Your task to perform on an android device: Open Maps and search for coffee Image 0: 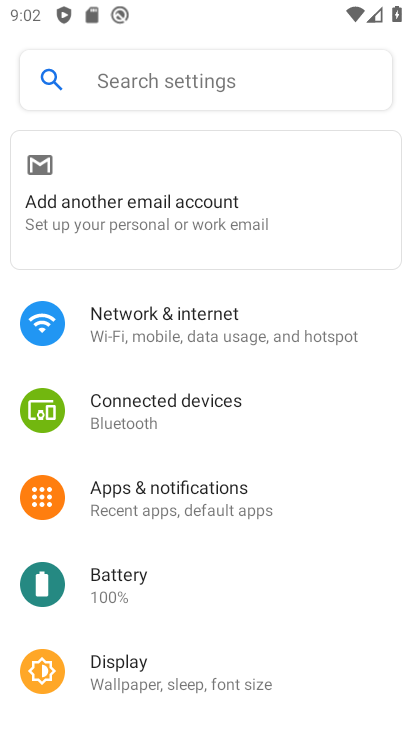
Step 0: press home button
Your task to perform on an android device: Open Maps and search for coffee Image 1: 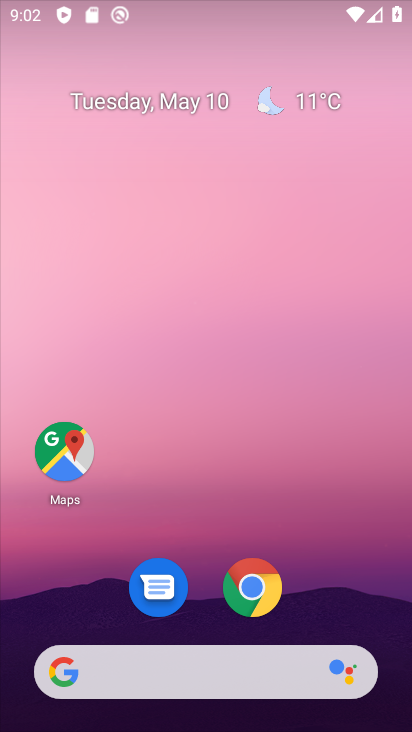
Step 1: click (29, 221)
Your task to perform on an android device: Open Maps and search for coffee Image 2: 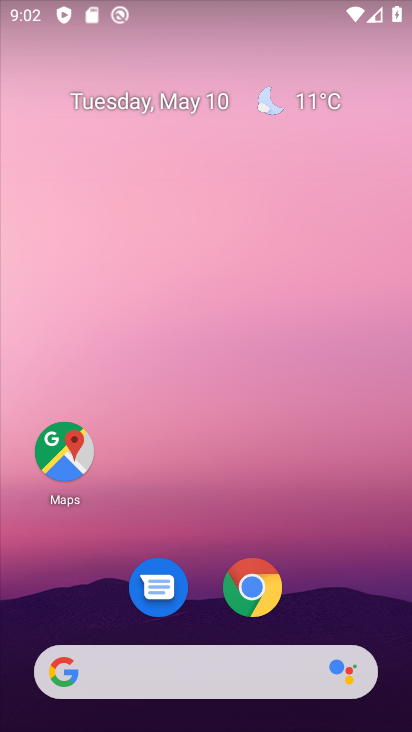
Step 2: click (71, 432)
Your task to perform on an android device: Open Maps and search for coffee Image 3: 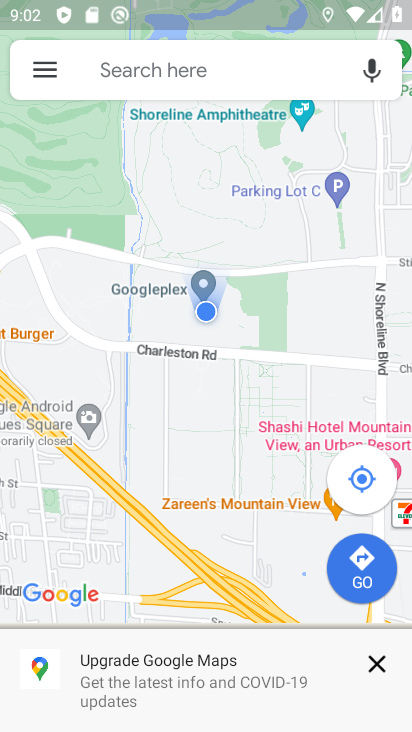
Step 3: click (233, 62)
Your task to perform on an android device: Open Maps and search for coffee Image 4: 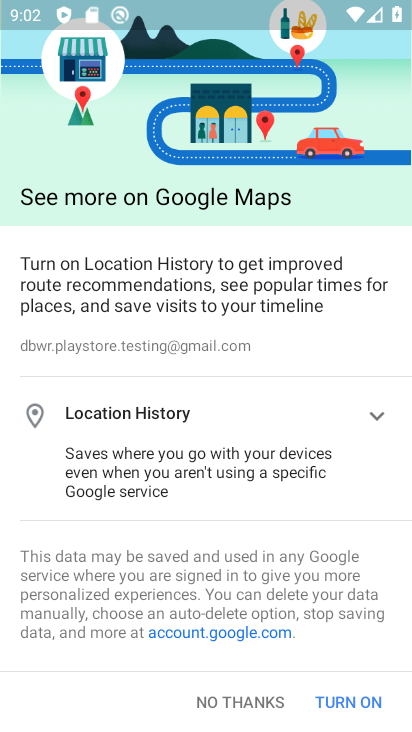
Step 4: click (355, 712)
Your task to perform on an android device: Open Maps and search for coffee Image 5: 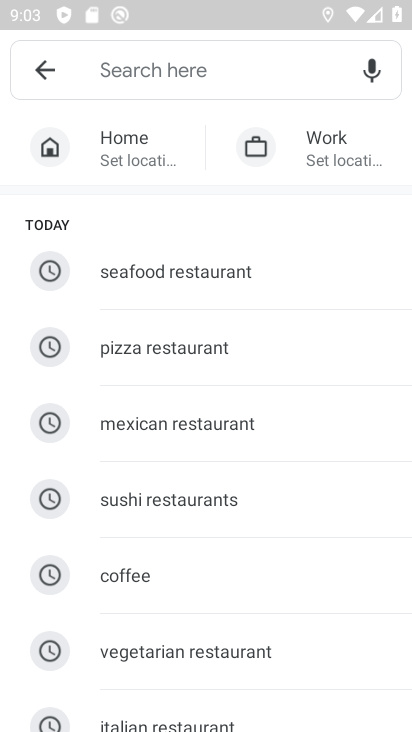
Step 5: click (151, 577)
Your task to perform on an android device: Open Maps and search for coffee Image 6: 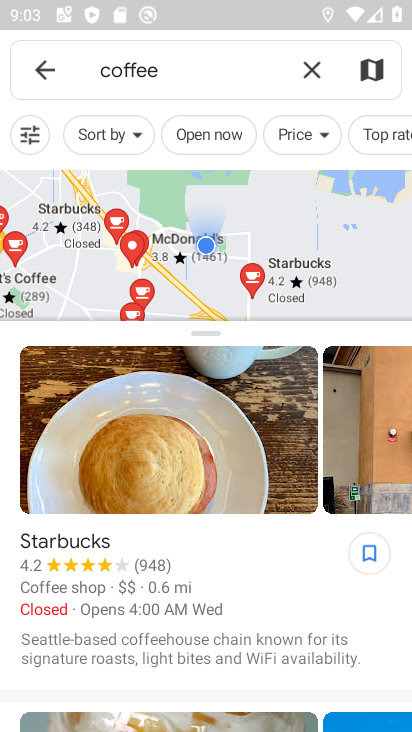
Step 6: task complete